Your task to perform on an android device: Go to ESPN.com Image 0: 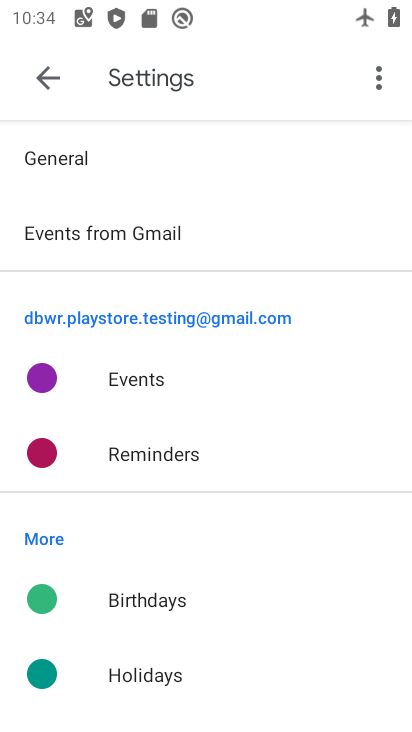
Step 0: press home button
Your task to perform on an android device: Go to ESPN.com Image 1: 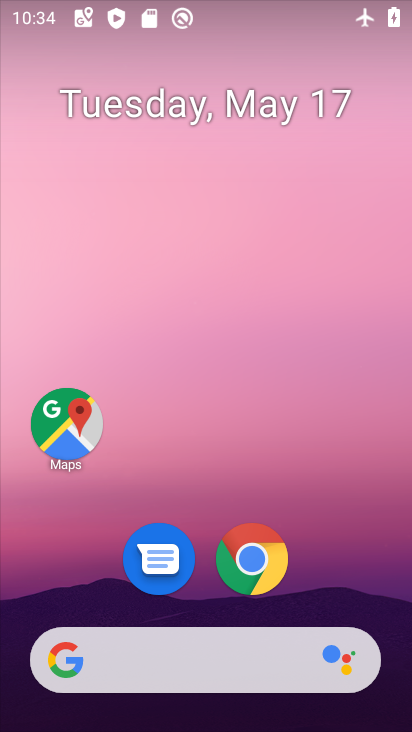
Step 1: click (263, 669)
Your task to perform on an android device: Go to ESPN.com Image 2: 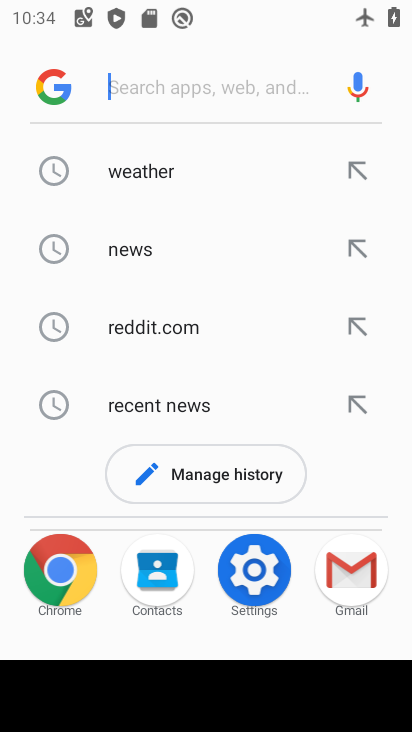
Step 2: type "espn.com"
Your task to perform on an android device: Go to ESPN.com Image 3: 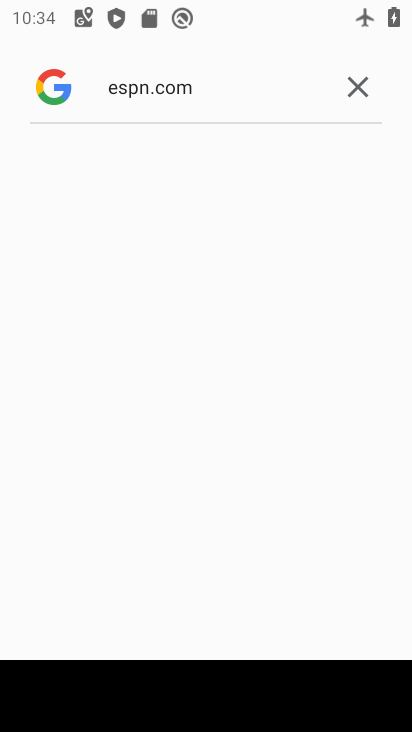
Step 3: task complete